Your task to perform on an android device: Go to network settings Image 0: 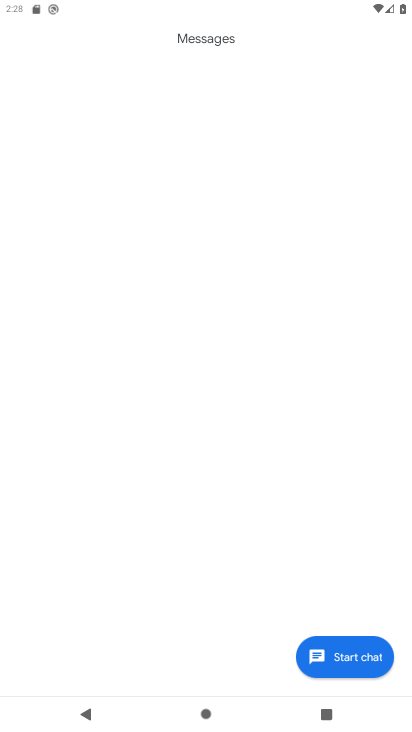
Step 0: press home button
Your task to perform on an android device: Go to network settings Image 1: 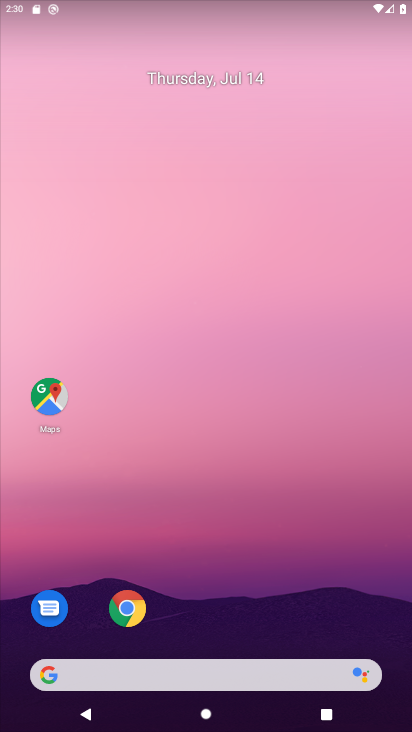
Step 1: drag from (216, 485) to (242, 48)
Your task to perform on an android device: Go to network settings Image 2: 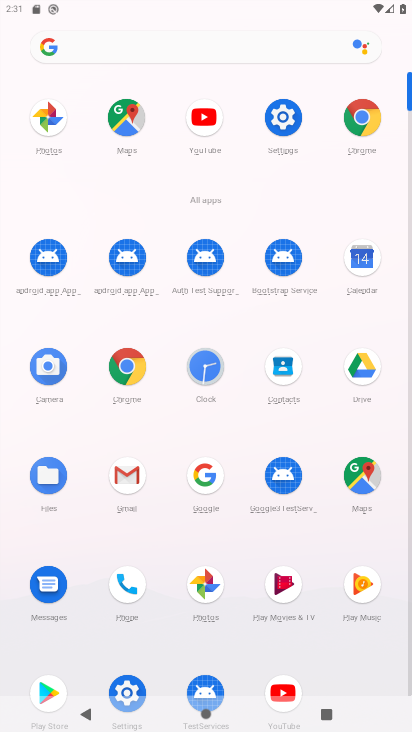
Step 2: click (265, 131)
Your task to perform on an android device: Go to network settings Image 3: 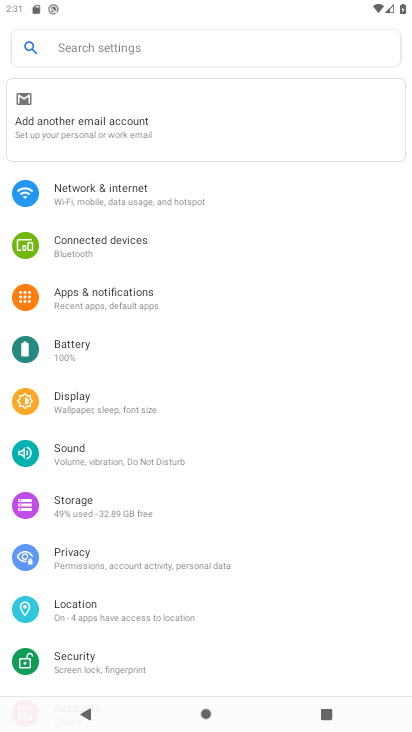
Step 3: click (124, 196)
Your task to perform on an android device: Go to network settings Image 4: 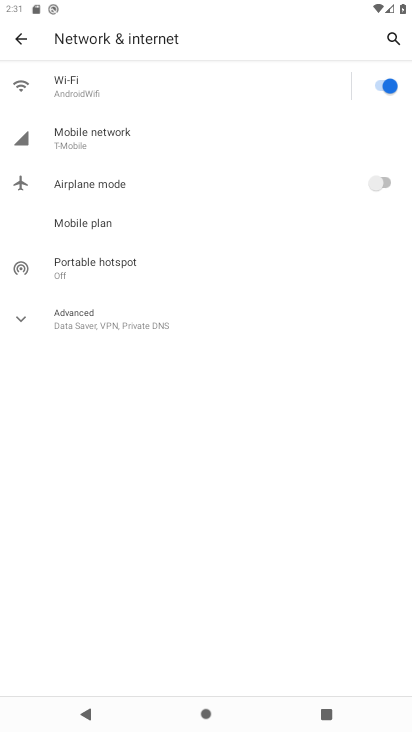
Step 4: task complete